Your task to perform on an android device: What's the weather today? Image 0: 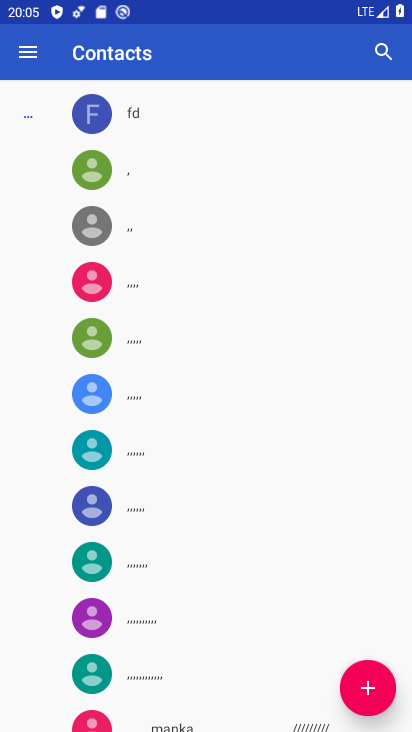
Step 0: press home button
Your task to perform on an android device: What's the weather today? Image 1: 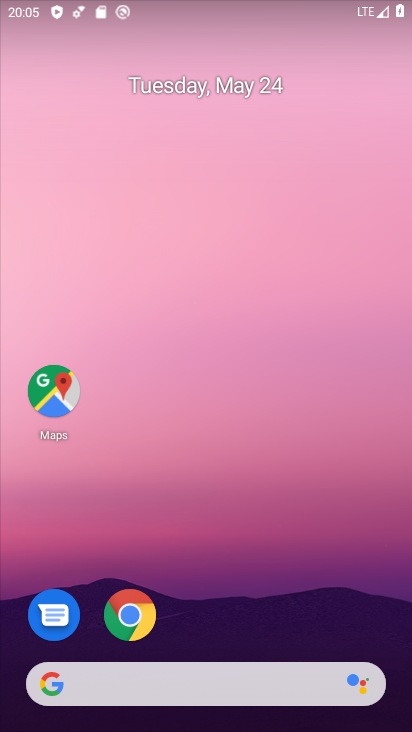
Step 1: drag from (245, 640) to (248, 594)
Your task to perform on an android device: What's the weather today? Image 2: 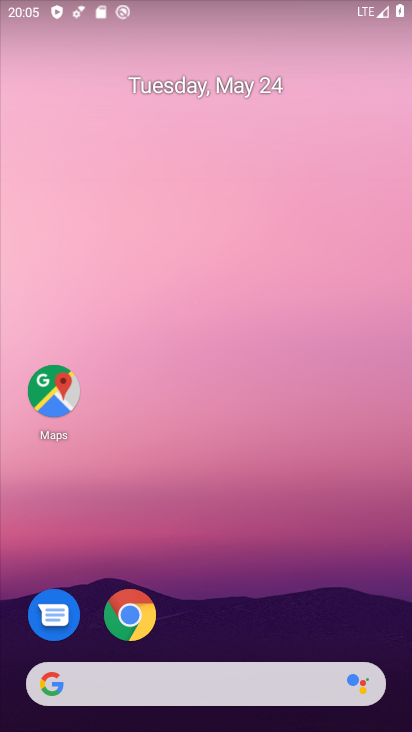
Step 2: click (122, 601)
Your task to perform on an android device: What's the weather today? Image 3: 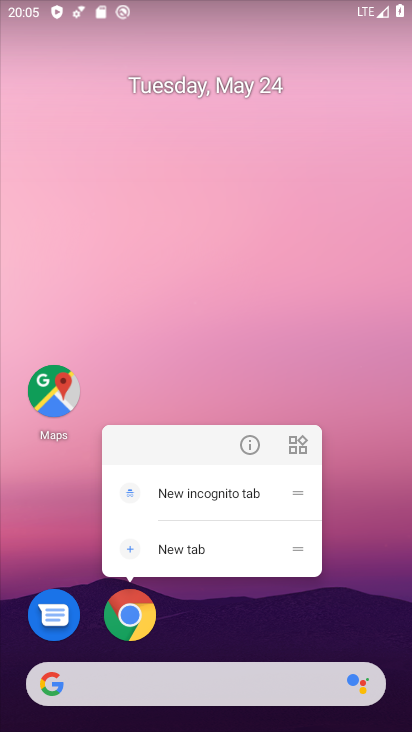
Step 3: click (122, 619)
Your task to perform on an android device: What's the weather today? Image 4: 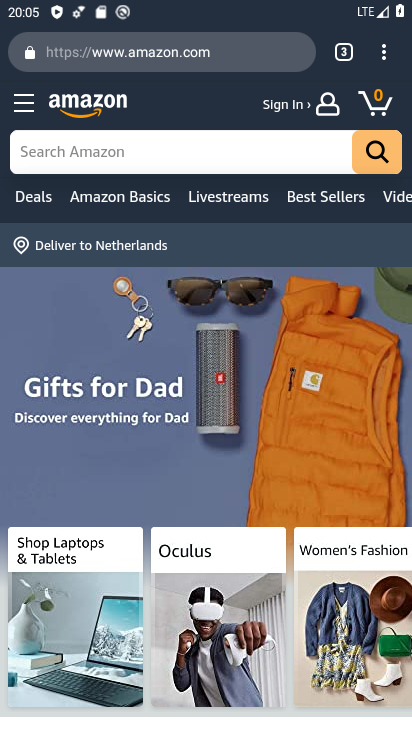
Step 4: click (387, 45)
Your task to perform on an android device: What's the weather today? Image 5: 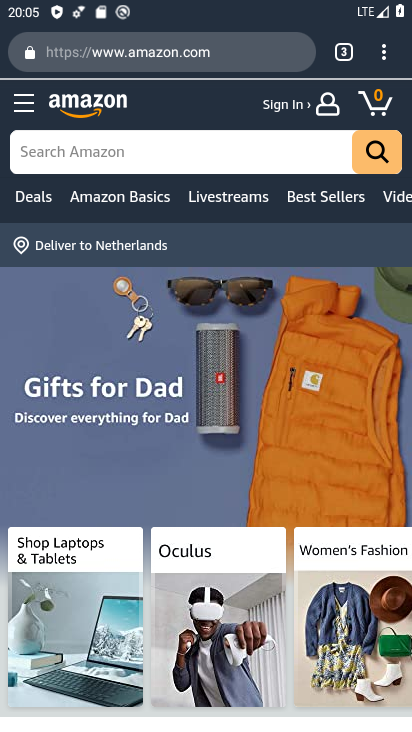
Step 5: click (389, 62)
Your task to perform on an android device: What's the weather today? Image 6: 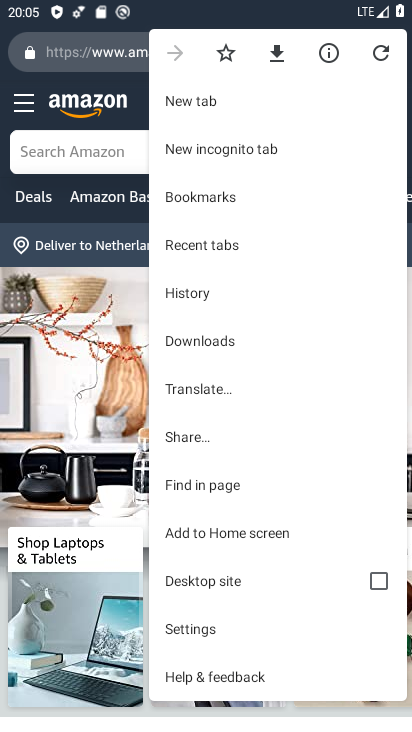
Step 6: click (231, 106)
Your task to perform on an android device: What's the weather today? Image 7: 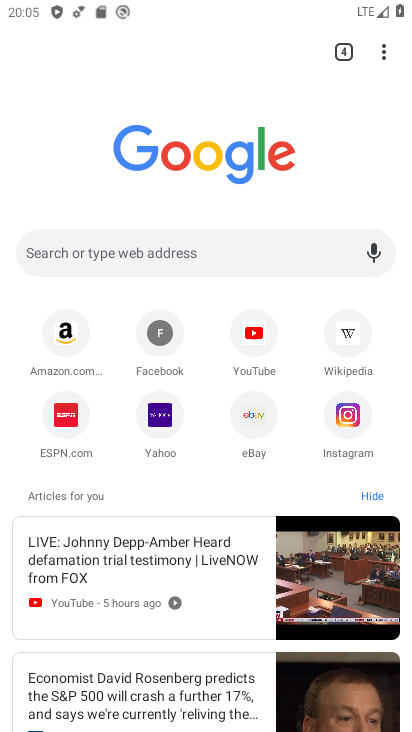
Step 7: click (141, 247)
Your task to perform on an android device: What's the weather today? Image 8: 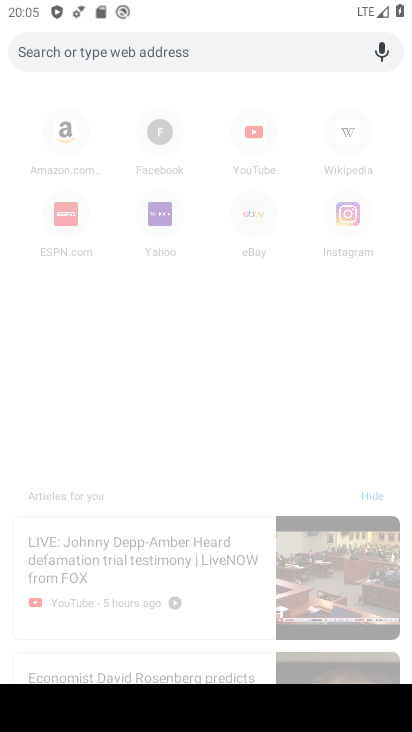
Step 8: type "What's the weather today?"
Your task to perform on an android device: What's the weather today? Image 9: 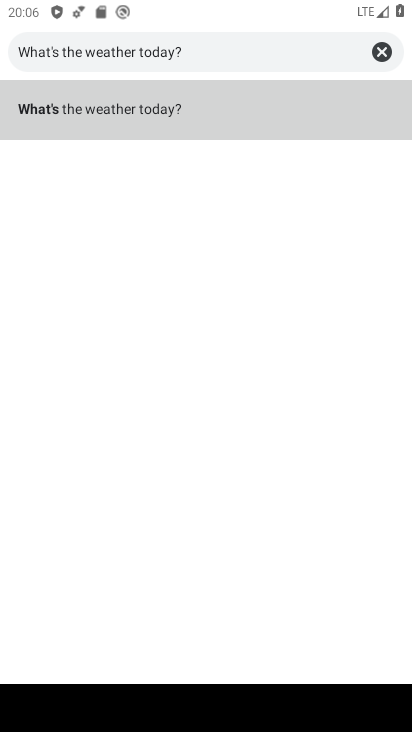
Step 9: click (116, 94)
Your task to perform on an android device: What's the weather today? Image 10: 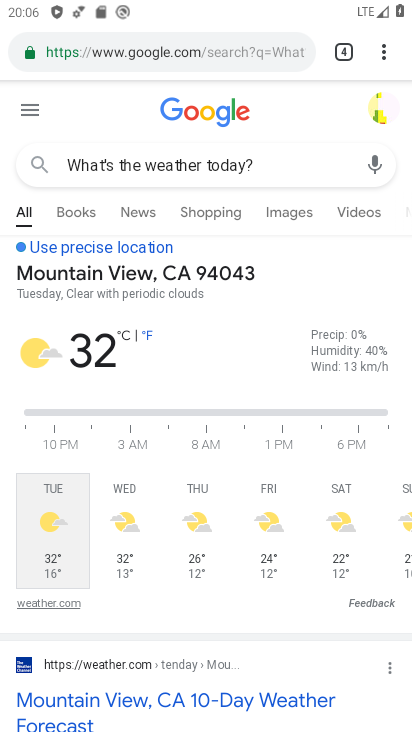
Step 10: task complete